Your task to perform on an android device: Open ESPN.com Image 0: 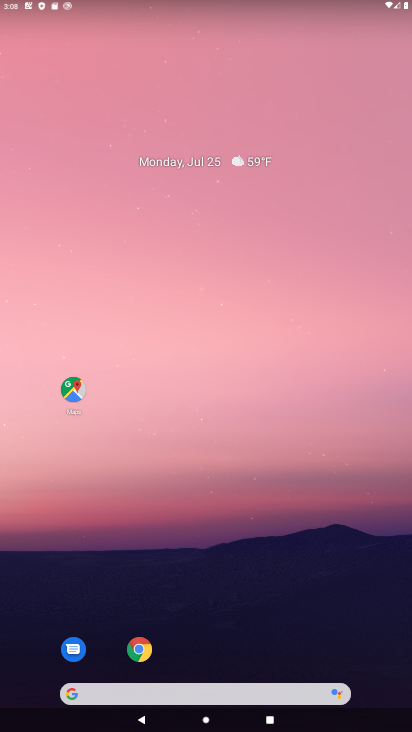
Step 0: click (157, 700)
Your task to perform on an android device: Open ESPN.com Image 1: 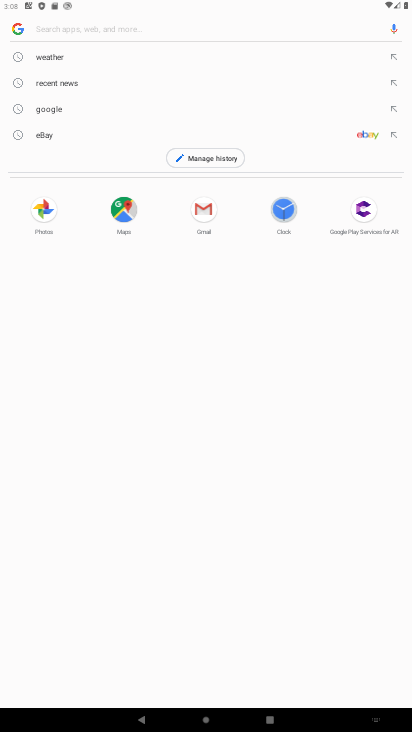
Step 1: type "espn.com"
Your task to perform on an android device: Open ESPN.com Image 2: 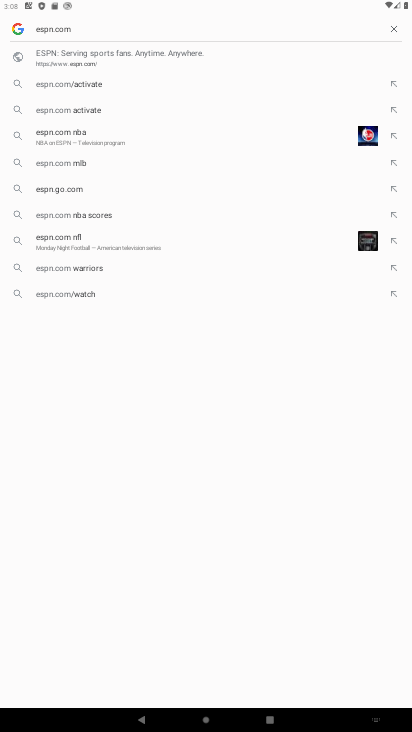
Step 2: click (83, 59)
Your task to perform on an android device: Open ESPN.com Image 3: 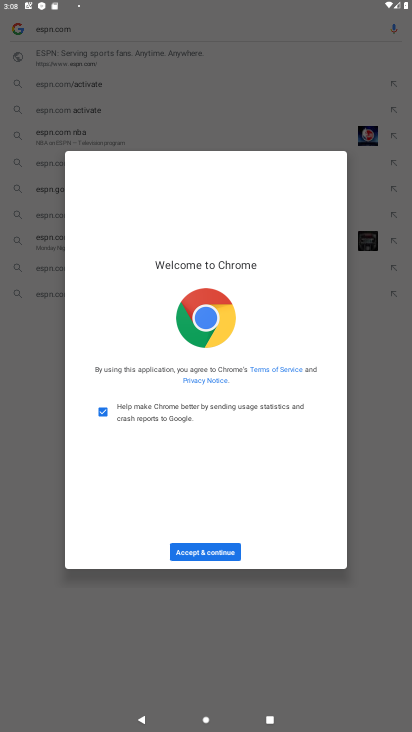
Step 3: click (220, 544)
Your task to perform on an android device: Open ESPN.com Image 4: 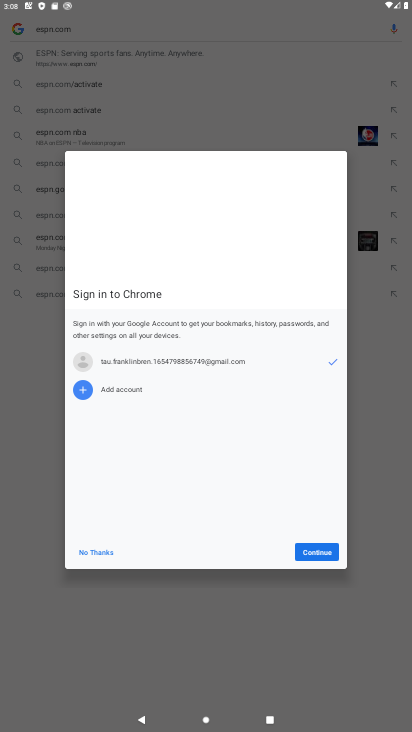
Step 4: click (303, 552)
Your task to perform on an android device: Open ESPN.com Image 5: 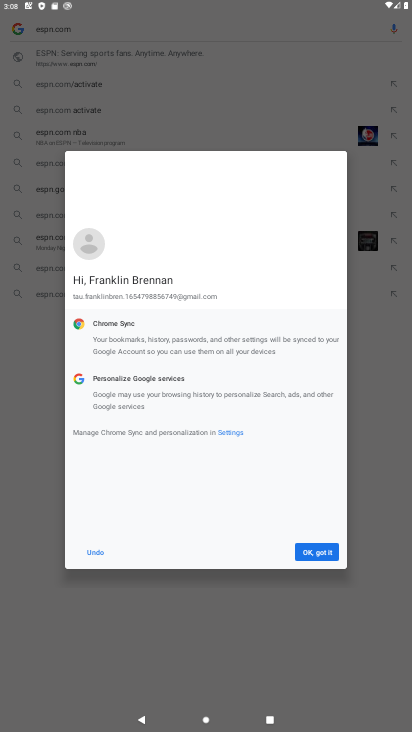
Step 5: click (329, 551)
Your task to perform on an android device: Open ESPN.com Image 6: 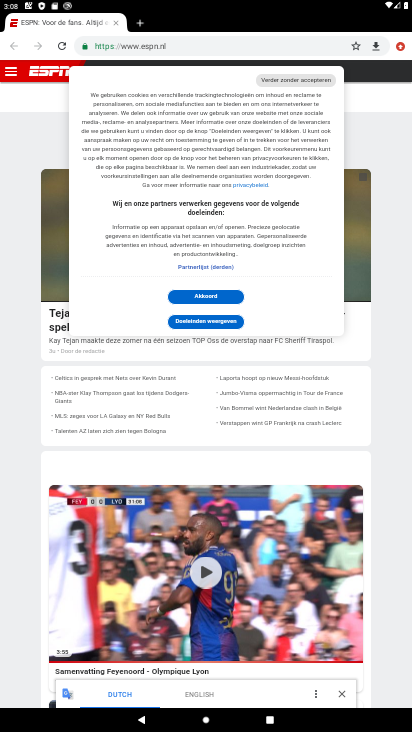
Step 6: task complete